Your task to perform on an android device: What's the weather today? Image 0: 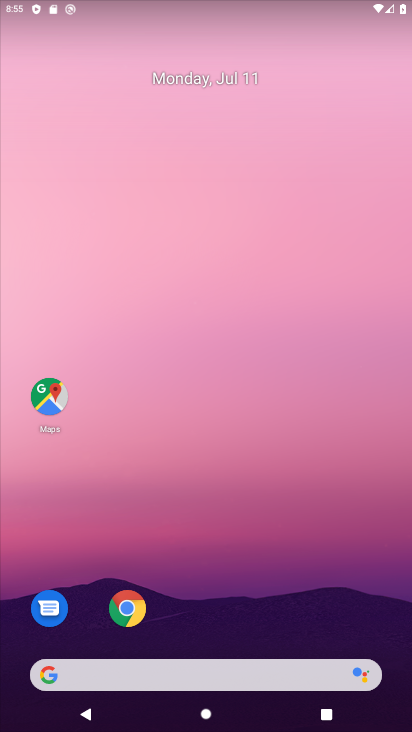
Step 0: click (134, 622)
Your task to perform on an android device: What's the weather today? Image 1: 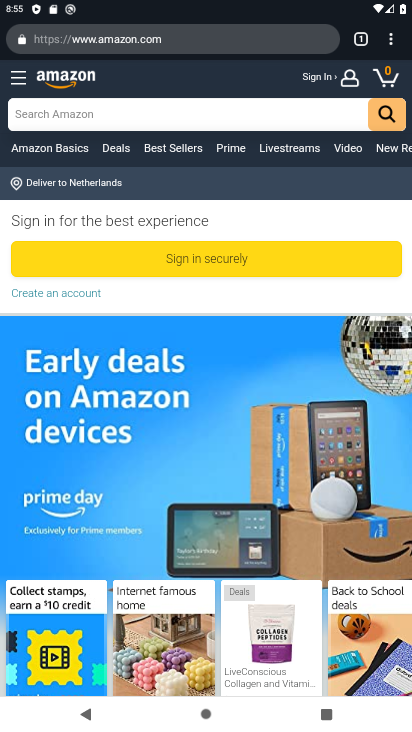
Step 1: click (209, 42)
Your task to perform on an android device: What's the weather today? Image 2: 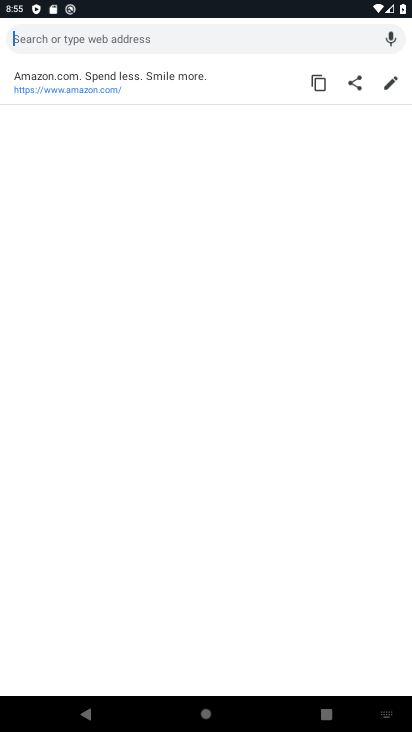
Step 2: type "weather today"
Your task to perform on an android device: What's the weather today? Image 3: 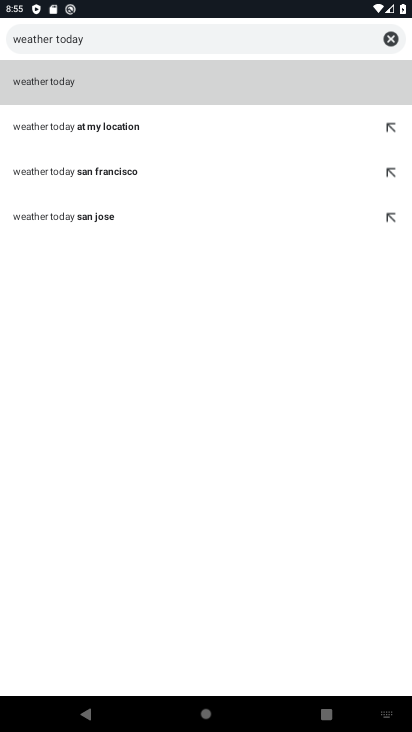
Step 3: click (85, 84)
Your task to perform on an android device: What's the weather today? Image 4: 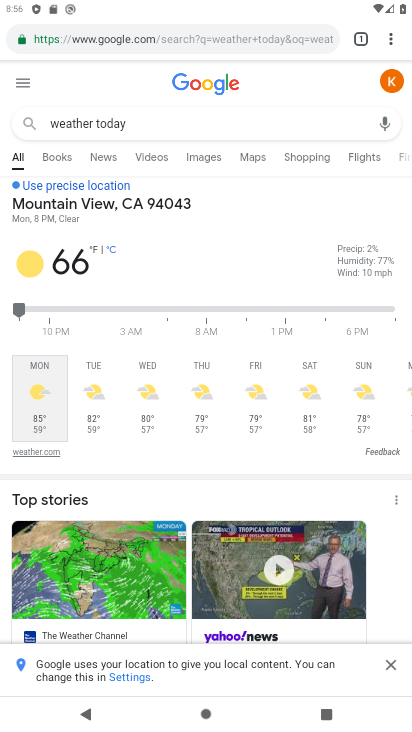
Step 4: task complete